Your task to perform on an android device: Go to privacy settings Image 0: 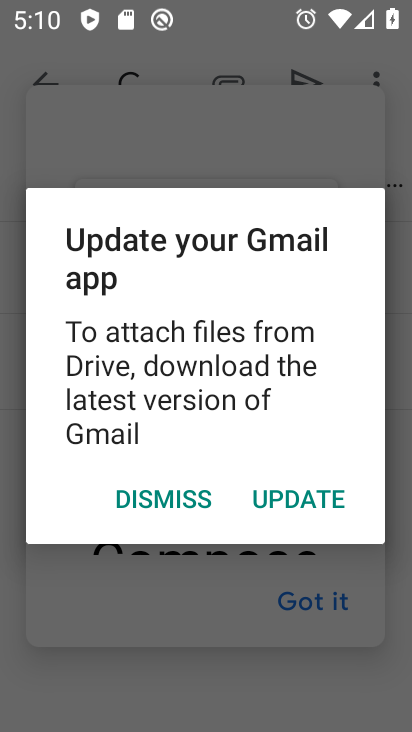
Step 0: press back button
Your task to perform on an android device: Go to privacy settings Image 1: 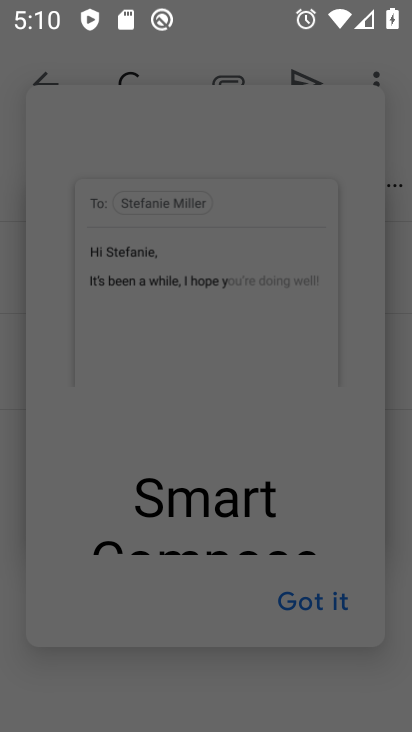
Step 1: press home button
Your task to perform on an android device: Go to privacy settings Image 2: 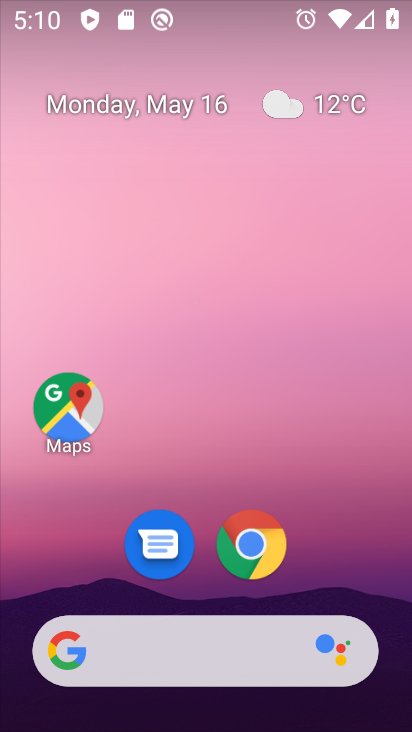
Step 2: drag from (352, 569) to (237, 209)
Your task to perform on an android device: Go to privacy settings Image 3: 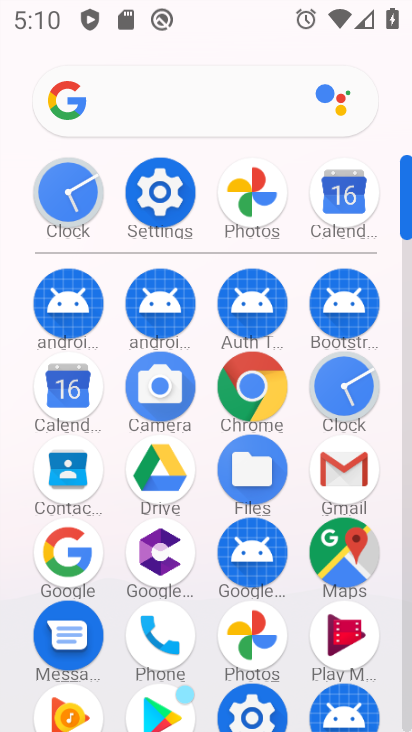
Step 3: click (155, 192)
Your task to perform on an android device: Go to privacy settings Image 4: 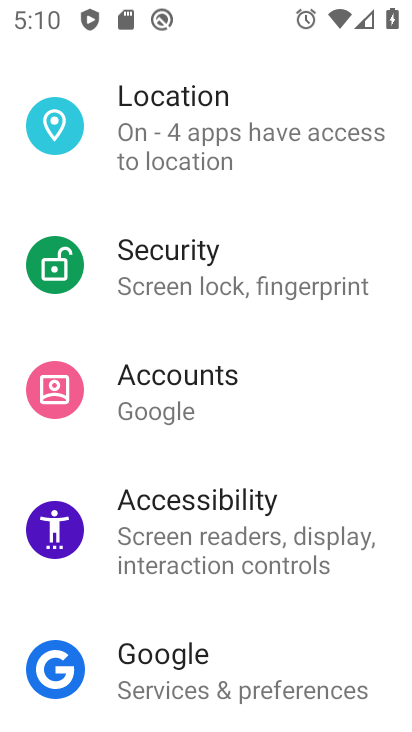
Step 4: drag from (265, 369) to (257, 492)
Your task to perform on an android device: Go to privacy settings Image 5: 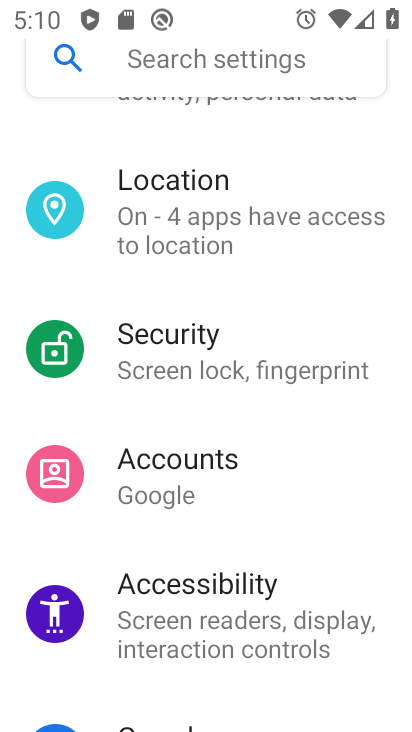
Step 5: drag from (252, 277) to (246, 438)
Your task to perform on an android device: Go to privacy settings Image 6: 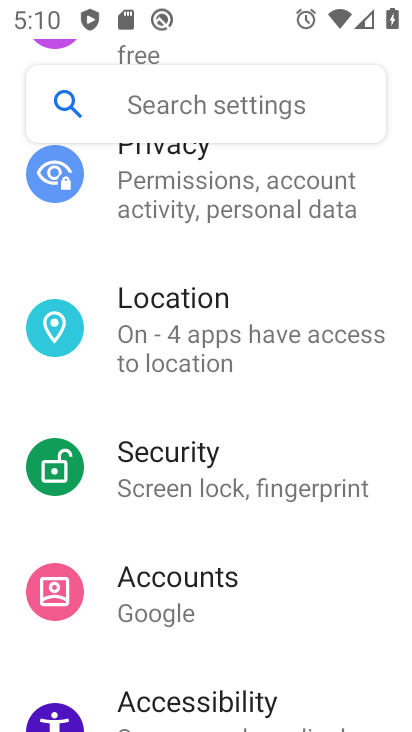
Step 6: drag from (247, 238) to (257, 452)
Your task to perform on an android device: Go to privacy settings Image 7: 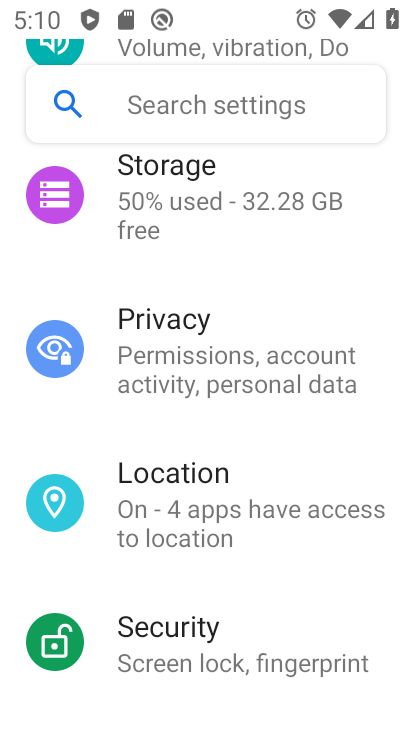
Step 7: click (188, 323)
Your task to perform on an android device: Go to privacy settings Image 8: 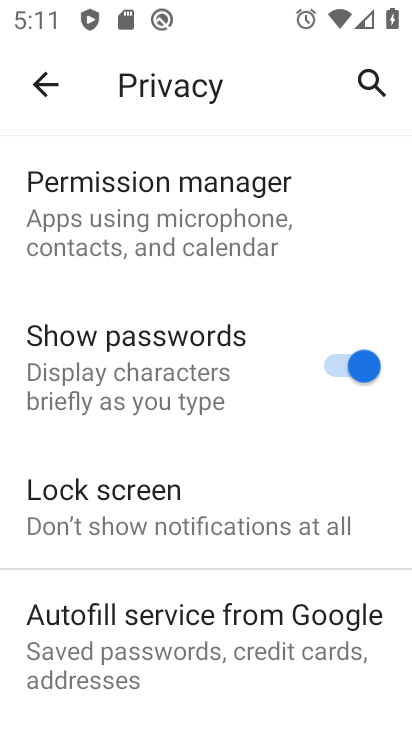
Step 8: task complete